Your task to perform on an android device: Open my contact list Image 0: 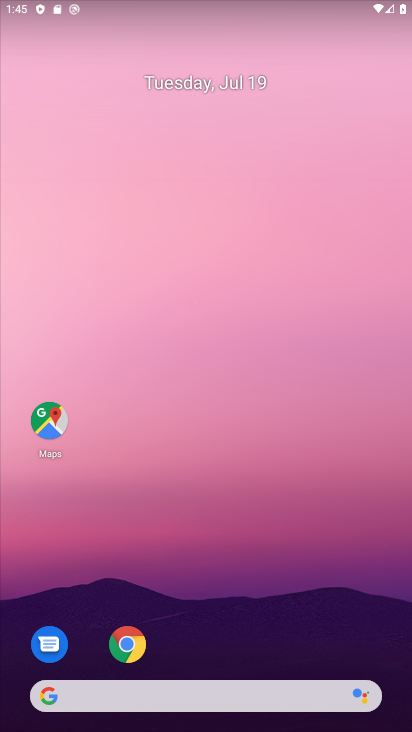
Step 0: drag from (199, 623) to (200, 207)
Your task to perform on an android device: Open my contact list Image 1: 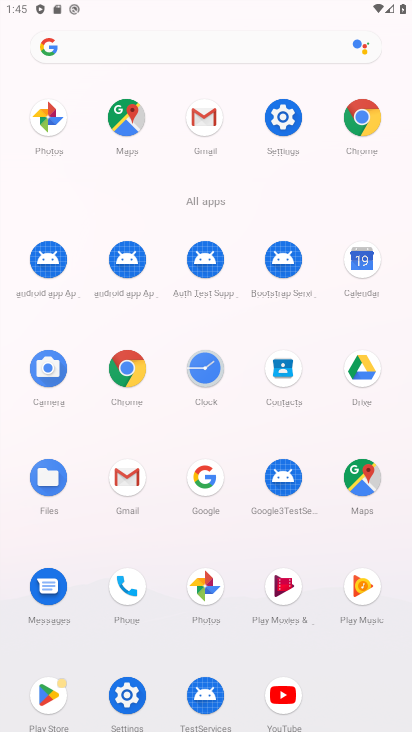
Step 1: click (280, 372)
Your task to perform on an android device: Open my contact list Image 2: 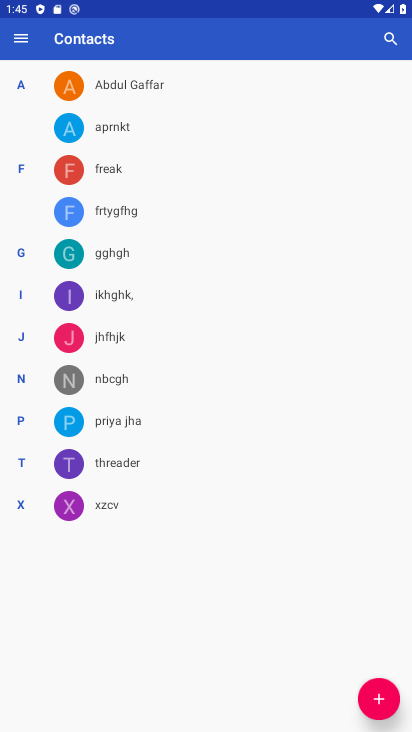
Step 2: task complete